Your task to perform on an android device: toggle notifications settings in the gmail app Image 0: 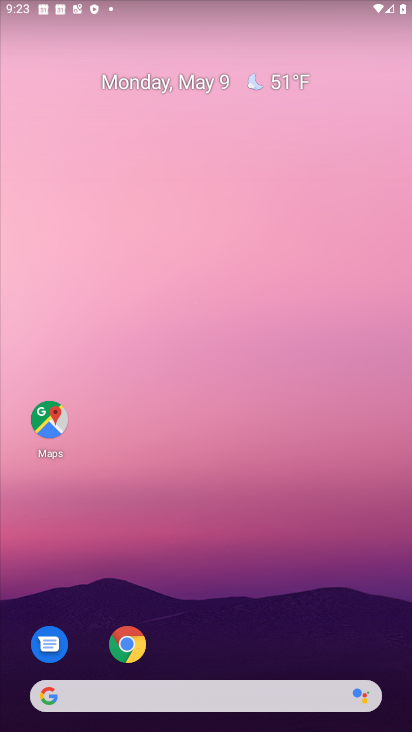
Step 0: drag from (193, 677) to (142, 4)
Your task to perform on an android device: toggle notifications settings in the gmail app Image 1: 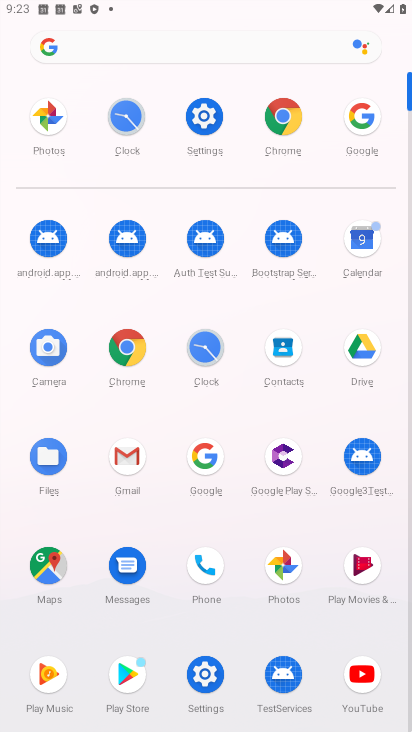
Step 1: click (118, 459)
Your task to perform on an android device: toggle notifications settings in the gmail app Image 2: 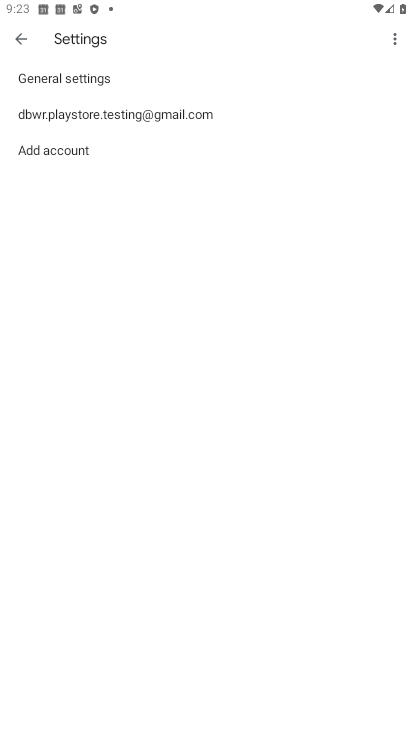
Step 2: click (80, 83)
Your task to perform on an android device: toggle notifications settings in the gmail app Image 3: 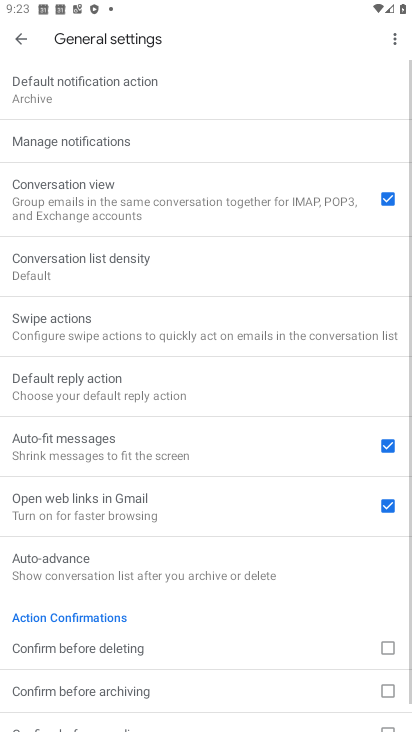
Step 3: click (94, 129)
Your task to perform on an android device: toggle notifications settings in the gmail app Image 4: 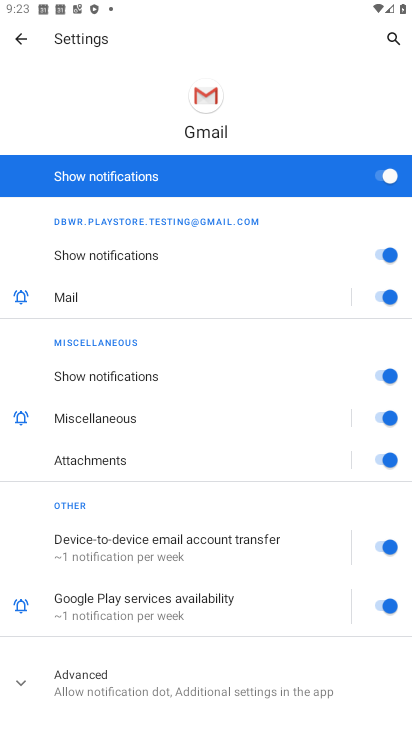
Step 4: click (369, 183)
Your task to perform on an android device: toggle notifications settings in the gmail app Image 5: 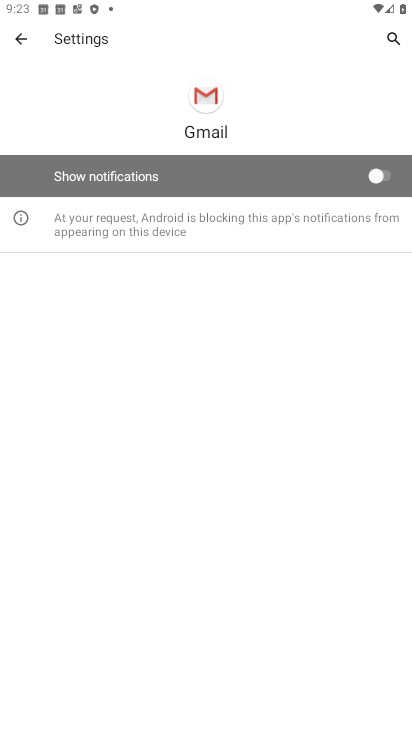
Step 5: task complete